Your task to perform on an android device: toggle priority inbox in the gmail app Image 0: 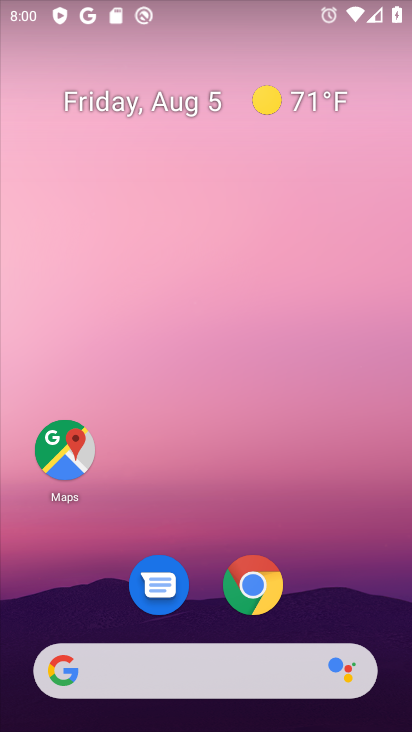
Step 0: drag from (330, 522) to (343, 36)
Your task to perform on an android device: toggle priority inbox in the gmail app Image 1: 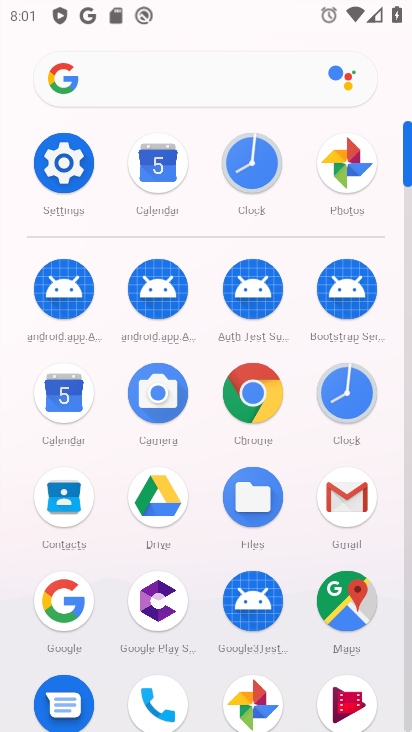
Step 1: click (351, 487)
Your task to perform on an android device: toggle priority inbox in the gmail app Image 2: 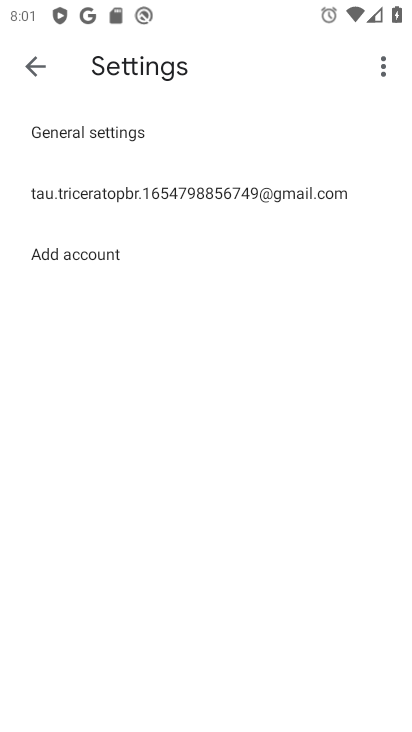
Step 2: click (165, 184)
Your task to perform on an android device: toggle priority inbox in the gmail app Image 3: 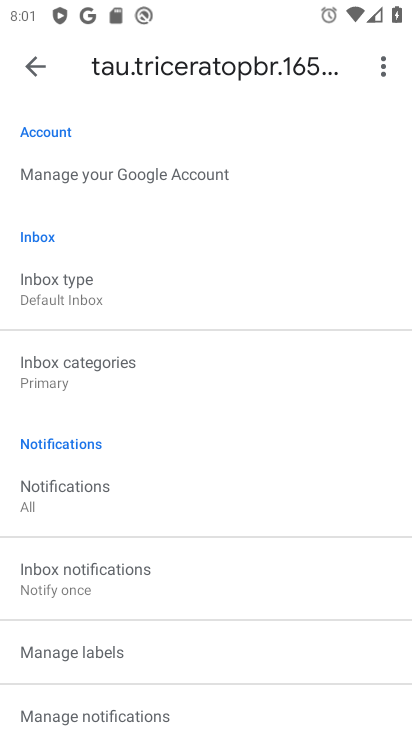
Step 3: click (94, 280)
Your task to perform on an android device: toggle priority inbox in the gmail app Image 4: 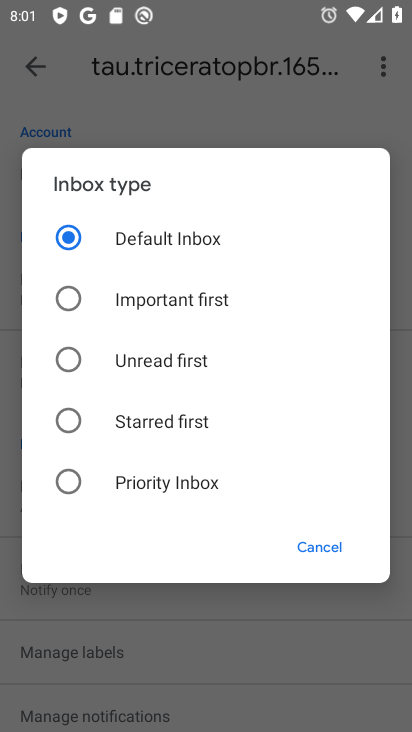
Step 4: click (70, 478)
Your task to perform on an android device: toggle priority inbox in the gmail app Image 5: 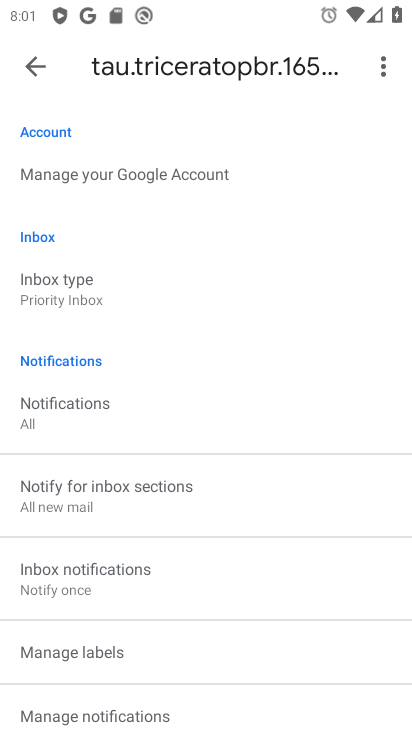
Step 5: task complete